Your task to perform on an android device: toggle airplane mode Image 0: 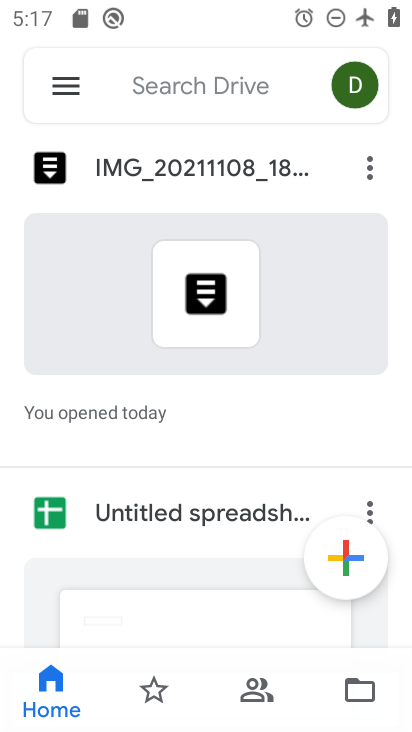
Step 0: press home button
Your task to perform on an android device: toggle airplane mode Image 1: 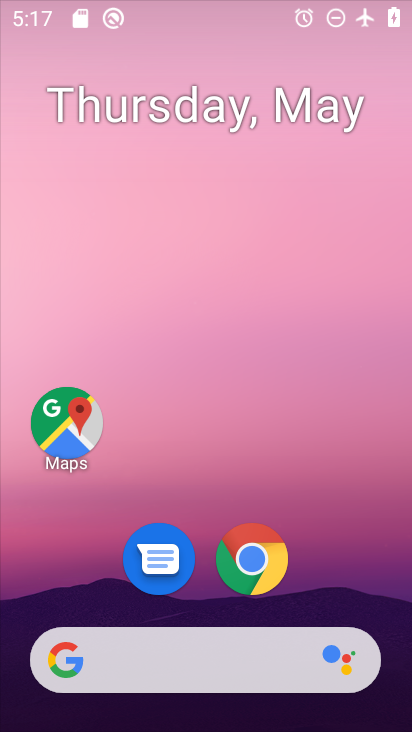
Step 1: drag from (344, 542) to (245, 54)
Your task to perform on an android device: toggle airplane mode Image 2: 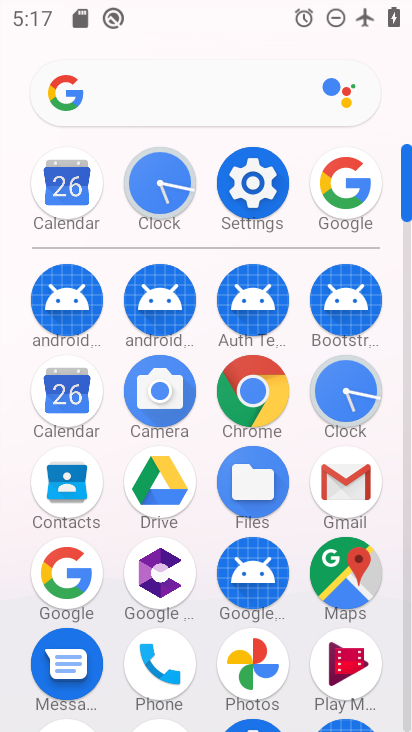
Step 2: click (252, 169)
Your task to perform on an android device: toggle airplane mode Image 3: 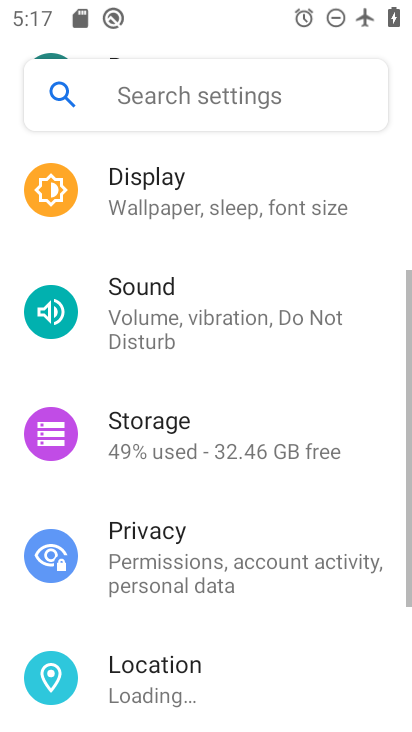
Step 3: drag from (230, 197) to (230, 624)
Your task to perform on an android device: toggle airplane mode Image 4: 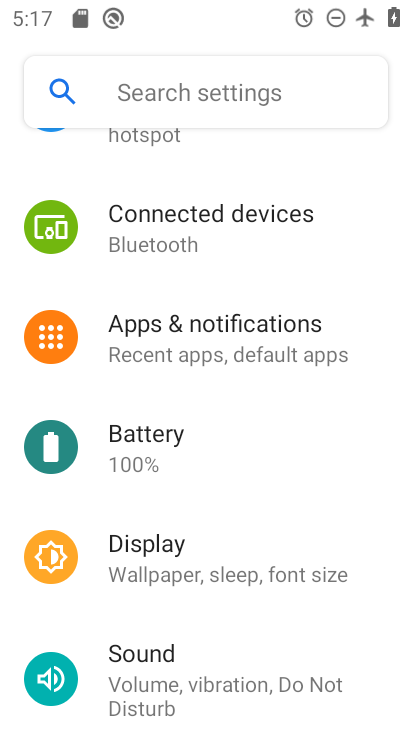
Step 4: drag from (242, 239) to (230, 611)
Your task to perform on an android device: toggle airplane mode Image 5: 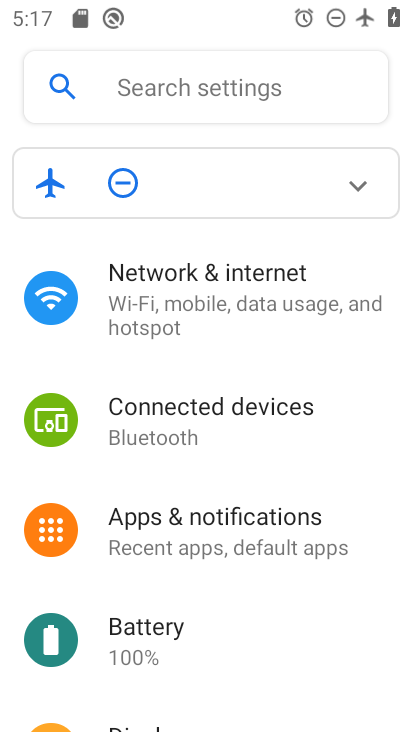
Step 5: click (221, 319)
Your task to perform on an android device: toggle airplane mode Image 6: 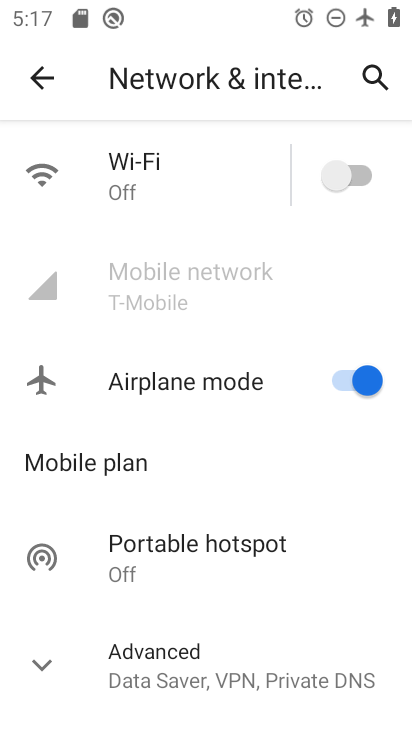
Step 6: click (338, 381)
Your task to perform on an android device: toggle airplane mode Image 7: 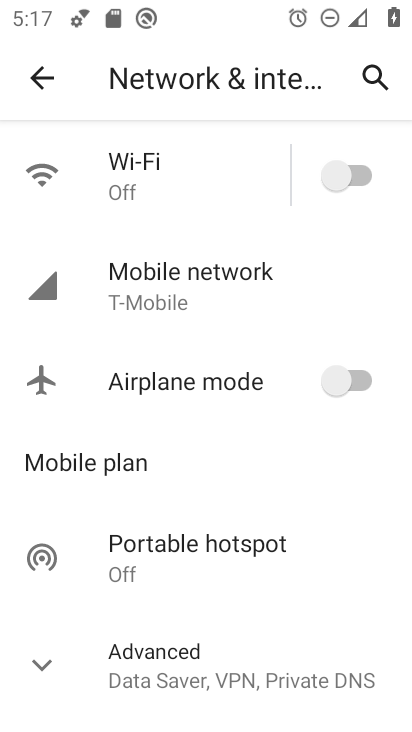
Step 7: task complete